Your task to perform on an android device: Open Google Maps and go to "Timeline" Image 0: 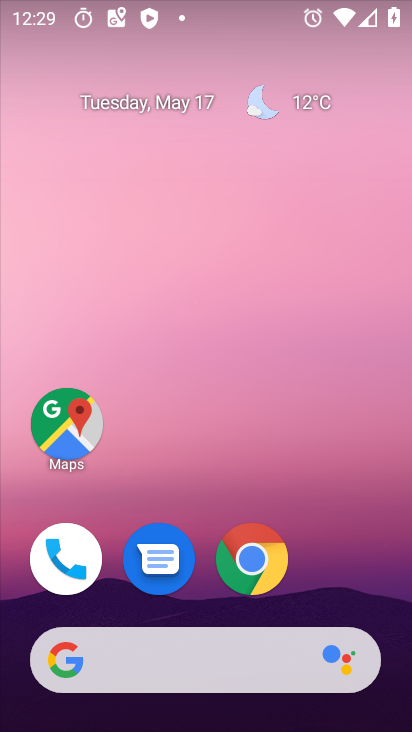
Step 0: click (50, 414)
Your task to perform on an android device: Open Google Maps and go to "Timeline" Image 1: 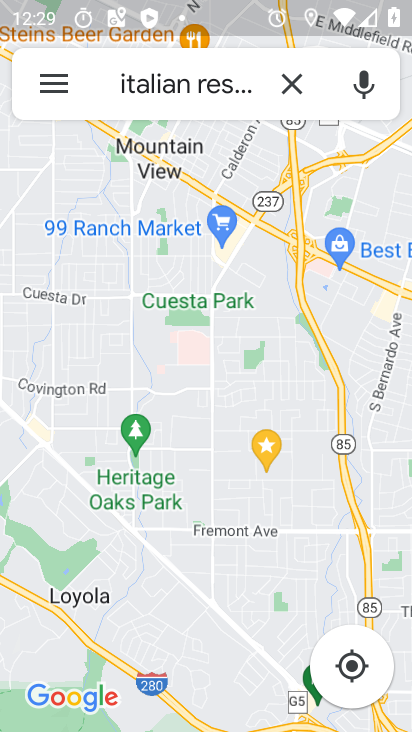
Step 1: click (37, 65)
Your task to perform on an android device: Open Google Maps and go to "Timeline" Image 2: 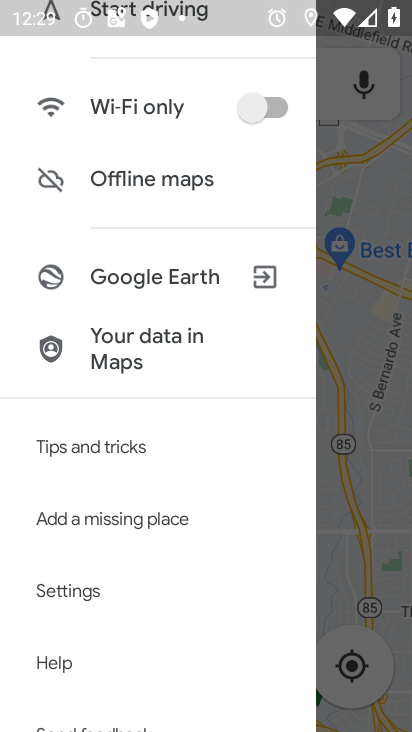
Step 2: drag from (157, 231) to (217, 585)
Your task to perform on an android device: Open Google Maps and go to "Timeline" Image 3: 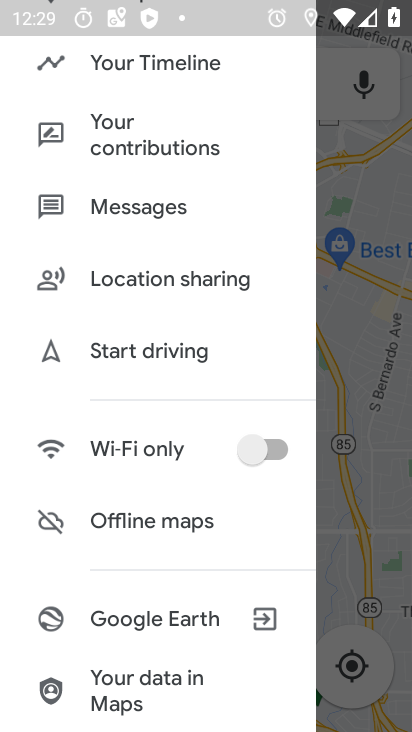
Step 3: drag from (194, 234) to (213, 557)
Your task to perform on an android device: Open Google Maps and go to "Timeline" Image 4: 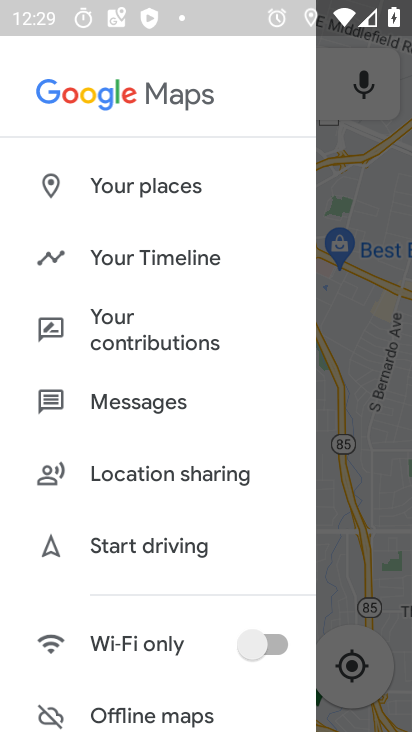
Step 4: click (186, 255)
Your task to perform on an android device: Open Google Maps and go to "Timeline" Image 5: 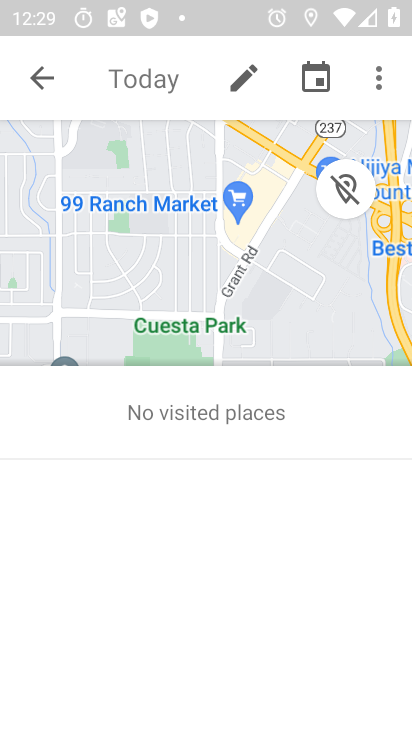
Step 5: task complete